Your task to perform on an android device: Go to privacy settings Image 0: 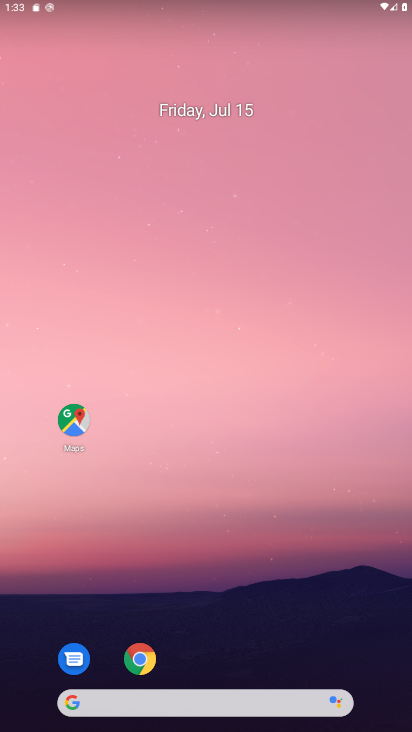
Step 0: drag from (191, 661) to (191, 121)
Your task to perform on an android device: Go to privacy settings Image 1: 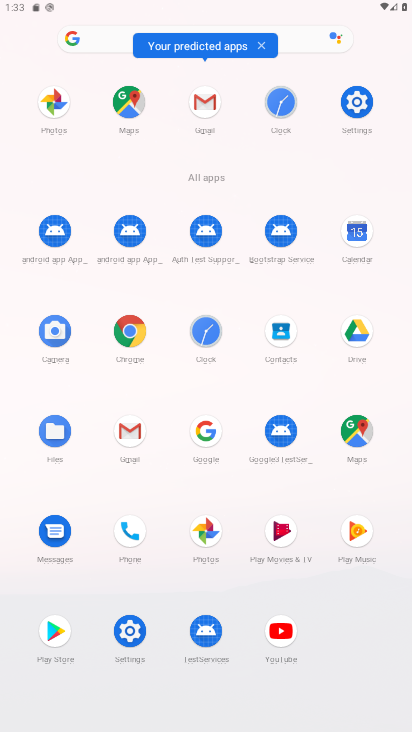
Step 1: click (369, 102)
Your task to perform on an android device: Go to privacy settings Image 2: 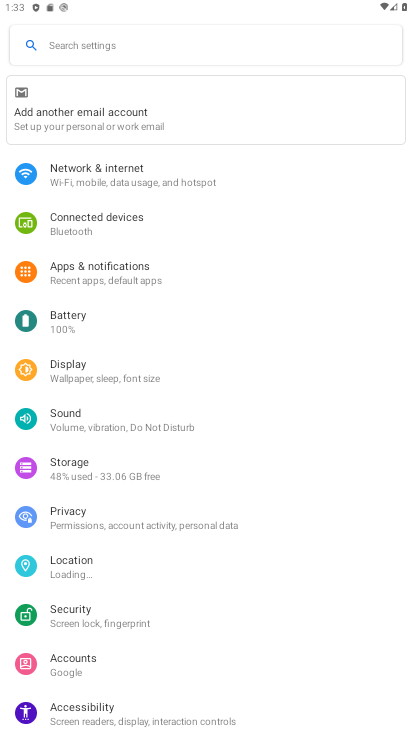
Step 2: click (130, 518)
Your task to perform on an android device: Go to privacy settings Image 3: 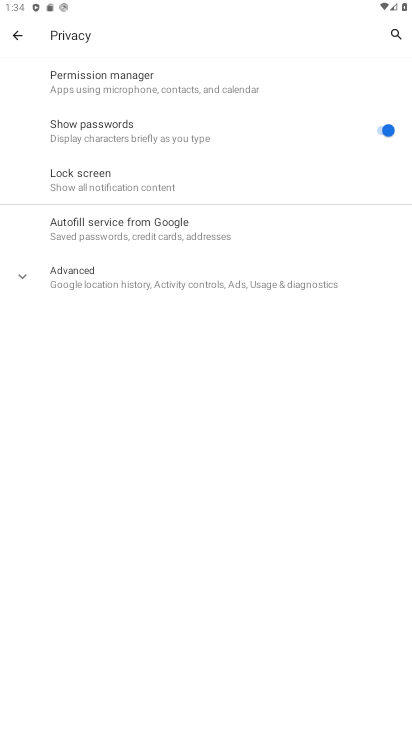
Step 3: task complete